Your task to perform on an android device: What's the news in Cambodia? Image 0: 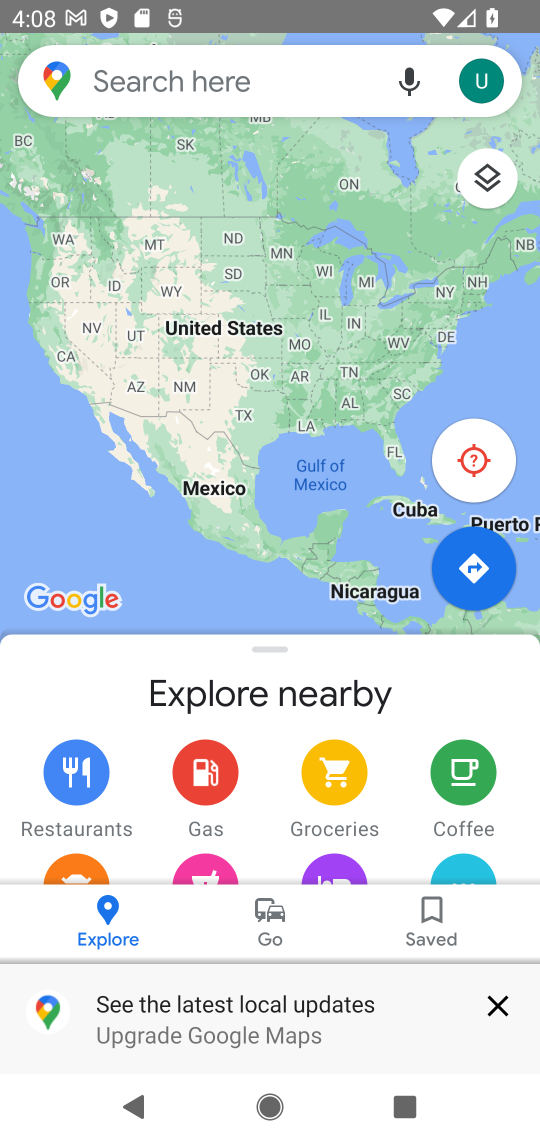
Step 0: press home button
Your task to perform on an android device: What's the news in Cambodia? Image 1: 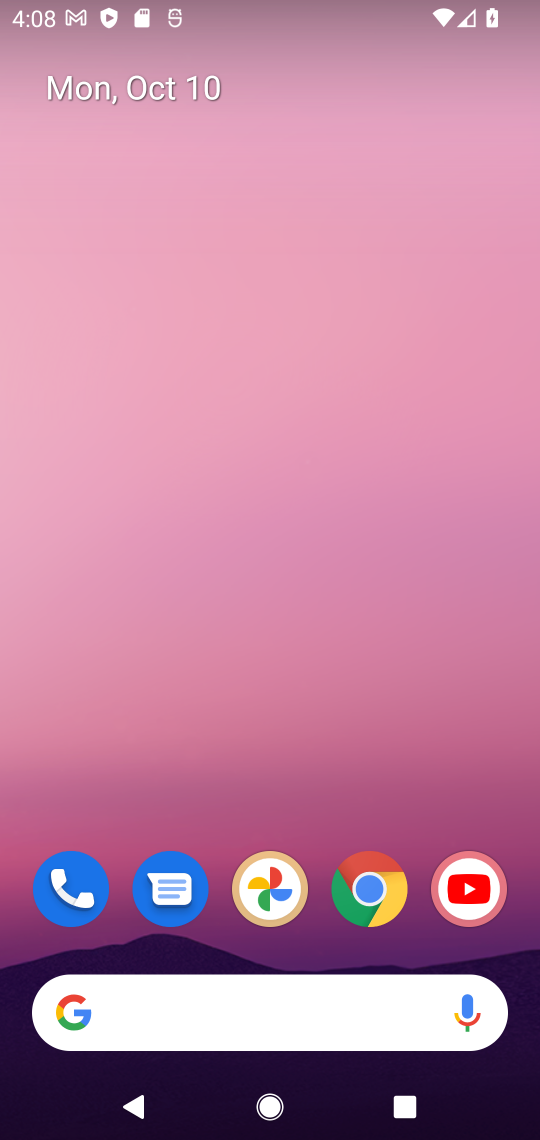
Step 1: click (365, 885)
Your task to perform on an android device: What's the news in Cambodia? Image 2: 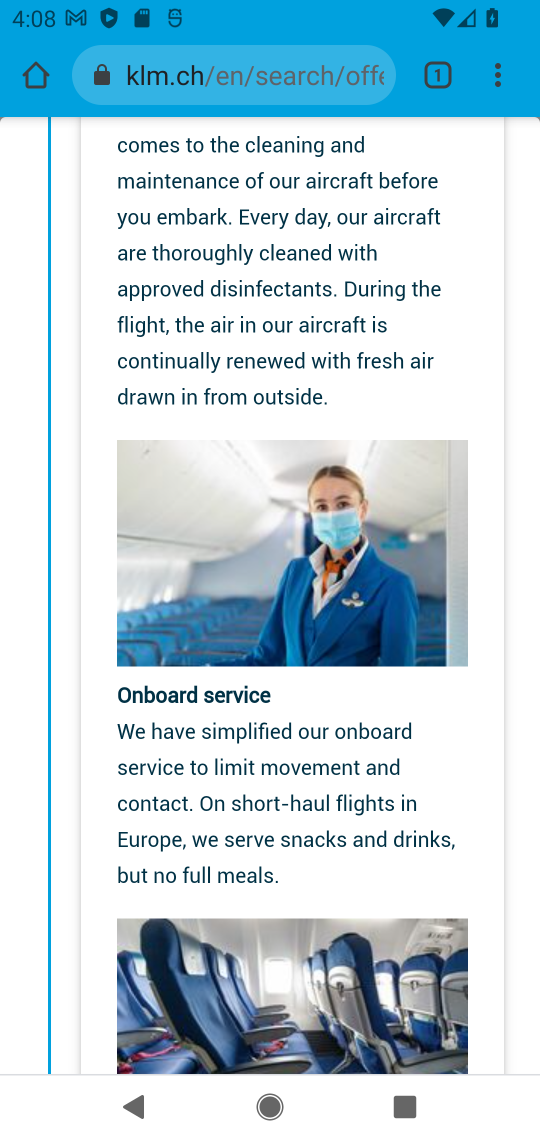
Step 2: click (257, 56)
Your task to perform on an android device: What's the news in Cambodia? Image 3: 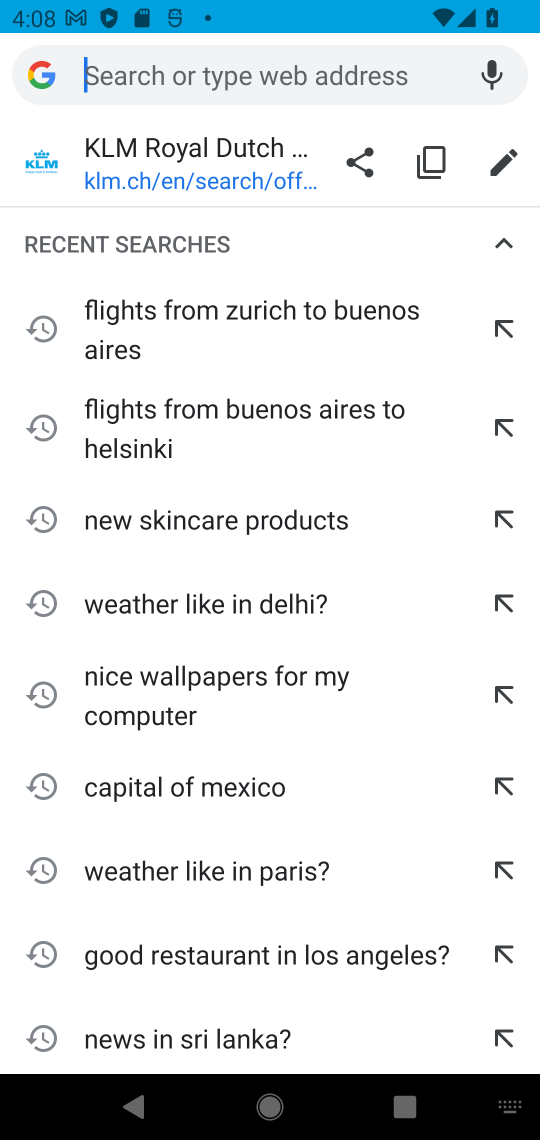
Step 3: type " news in Cambodia?"
Your task to perform on an android device: What's the news in Cambodia? Image 4: 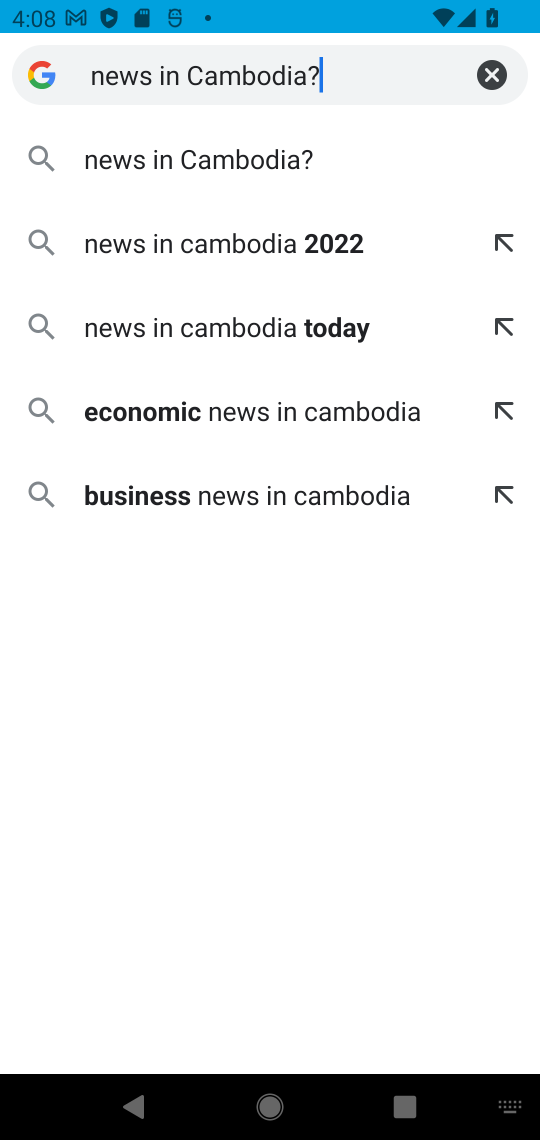
Step 4: click (166, 149)
Your task to perform on an android device: What's the news in Cambodia? Image 5: 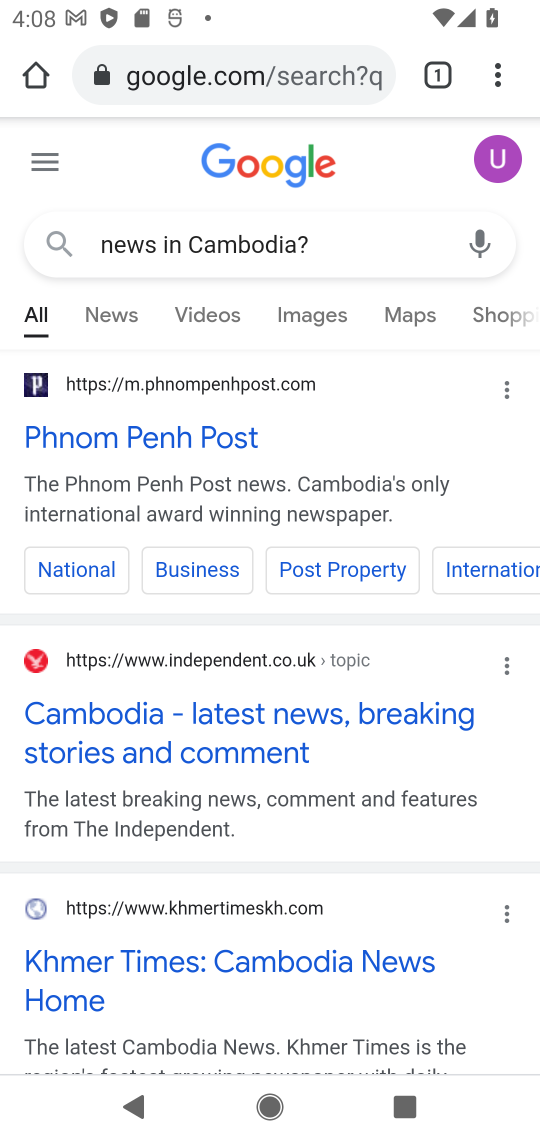
Step 5: drag from (339, 625) to (335, 346)
Your task to perform on an android device: What's the news in Cambodia? Image 6: 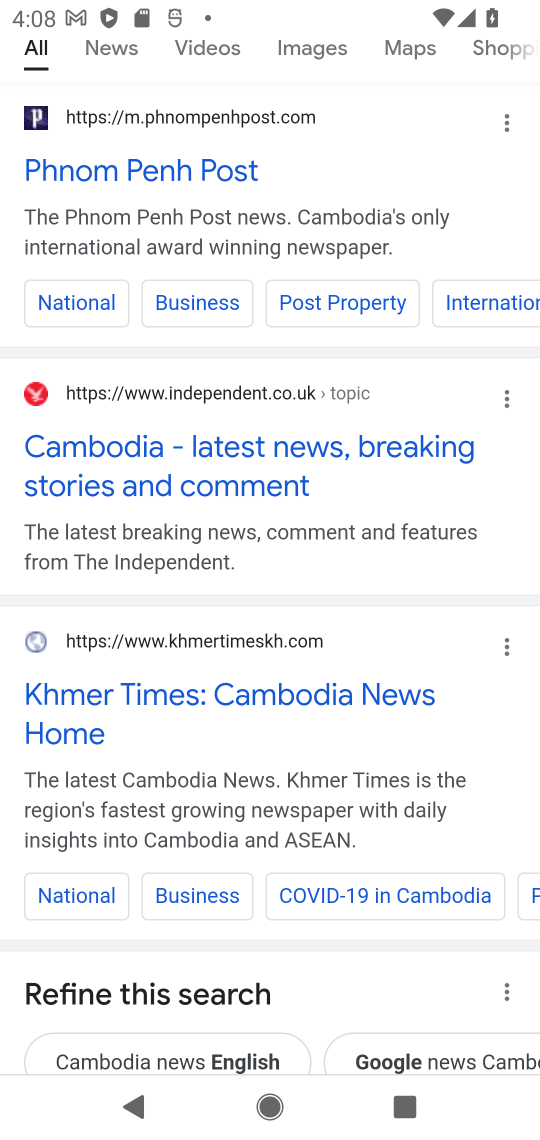
Step 6: click (95, 409)
Your task to perform on an android device: What's the news in Cambodia? Image 7: 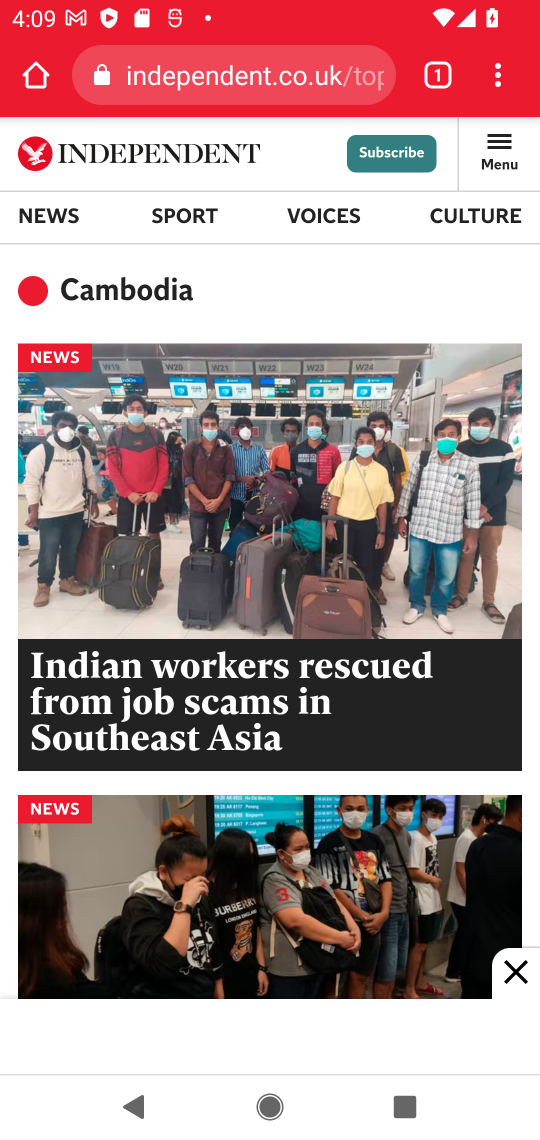
Step 7: click (95, 409)
Your task to perform on an android device: What's the news in Cambodia? Image 8: 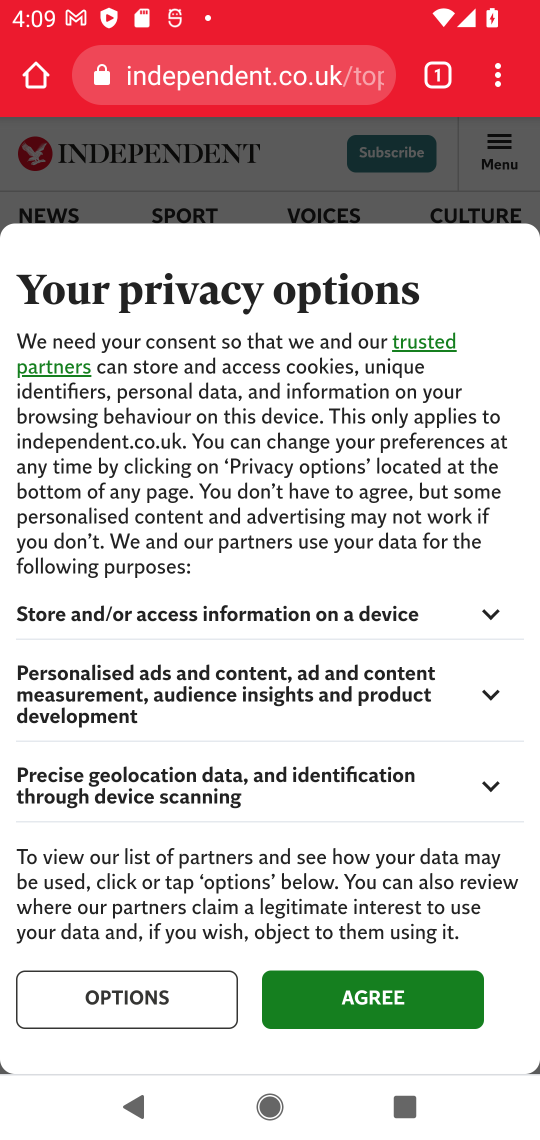
Step 8: click (367, 991)
Your task to perform on an android device: What's the news in Cambodia? Image 9: 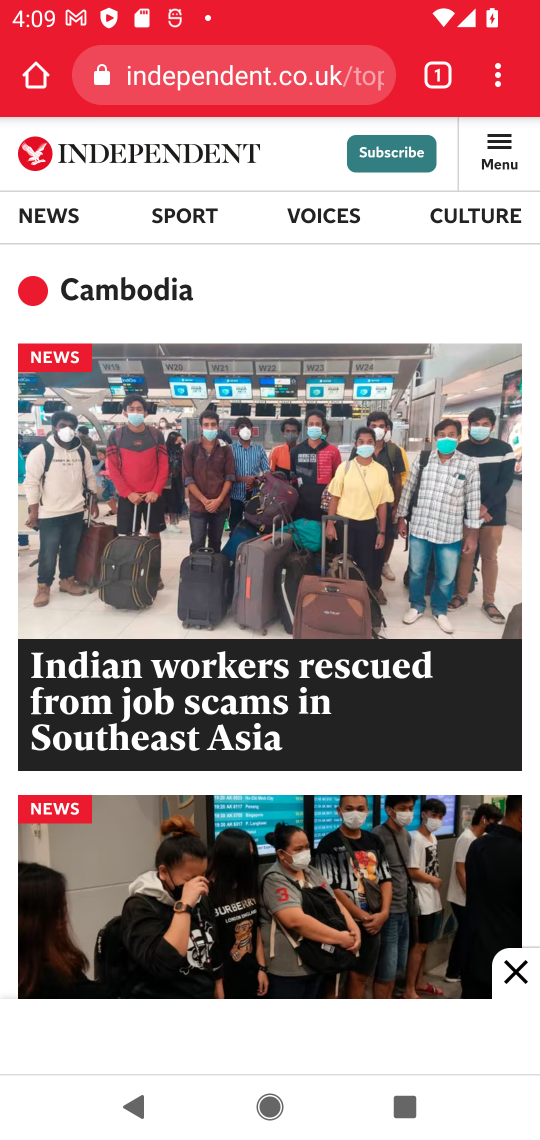
Step 9: click (189, 680)
Your task to perform on an android device: What's the news in Cambodia? Image 10: 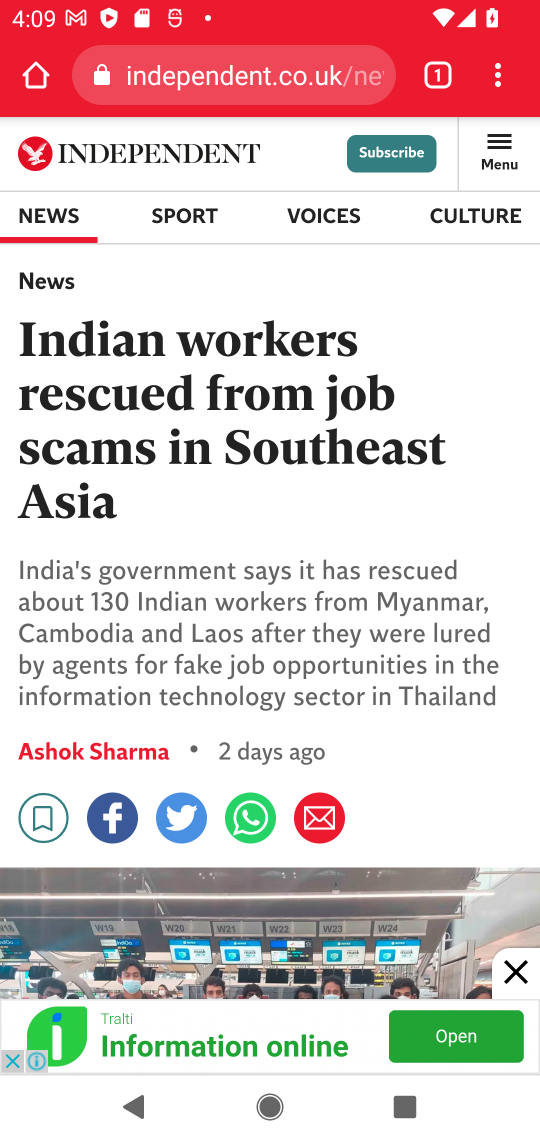
Step 10: task complete